Your task to perform on an android device: Go to notification settings Image 0: 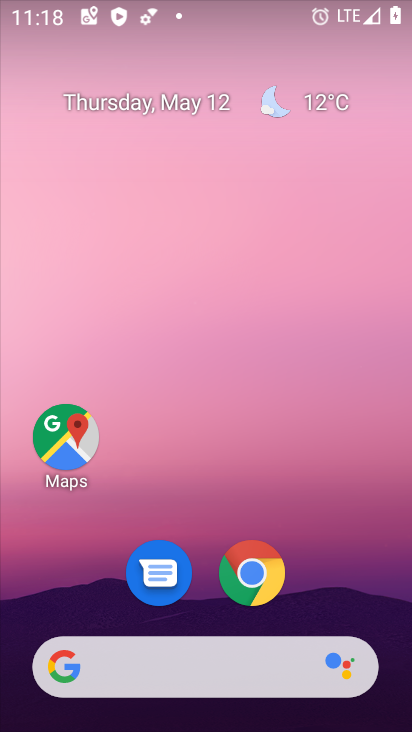
Step 0: drag from (197, 629) to (285, 245)
Your task to perform on an android device: Go to notification settings Image 1: 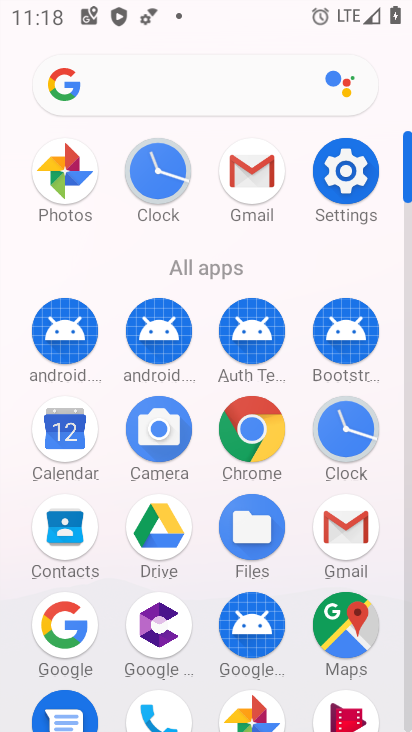
Step 1: click (345, 180)
Your task to perform on an android device: Go to notification settings Image 2: 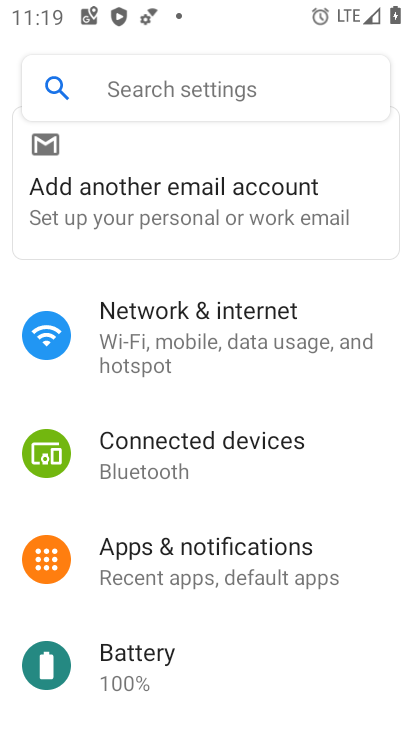
Step 2: click (210, 560)
Your task to perform on an android device: Go to notification settings Image 3: 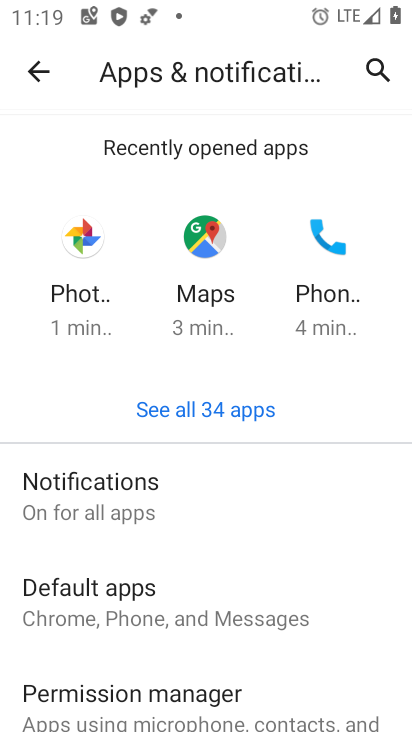
Step 3: task complete